Your task to perform on an android device: Search for logitech g pro on walmart.com, select the first entry, and add it to the cart. Image 0: 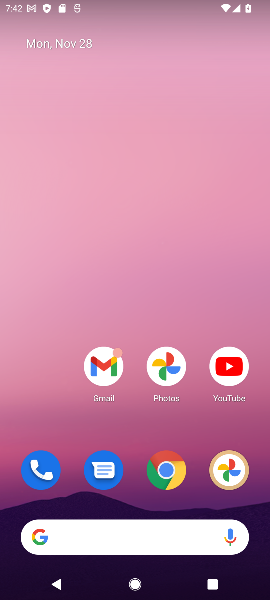
Step 0: click (94, 526)
Your task to perform on an android device: Search for logitech g pro on walmart.com, select the first entry, and add it to the cart. Image 1: 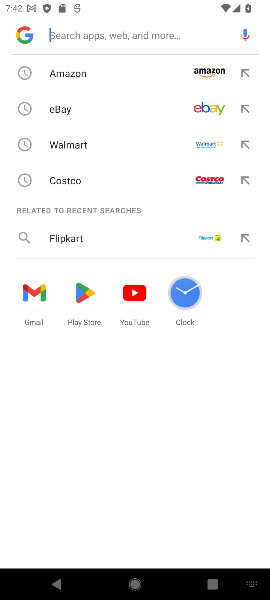
Step 1: click (87, 144)
Your task to perform on an android device: Search for logitech g pro on walmart.com, select the first entry, and add it to the cart. Image 2: 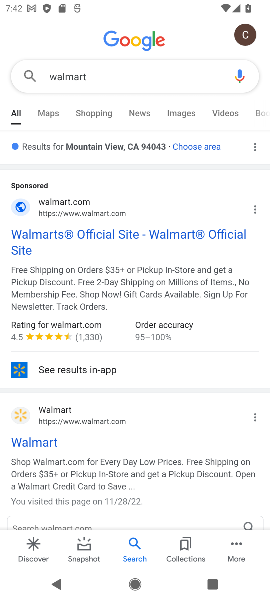
Step 2: click (48, 444)
Your task to perform on an android device: Search for logitech g pro on walmart.com, select the first entry, and add it to the cart. Image 3: 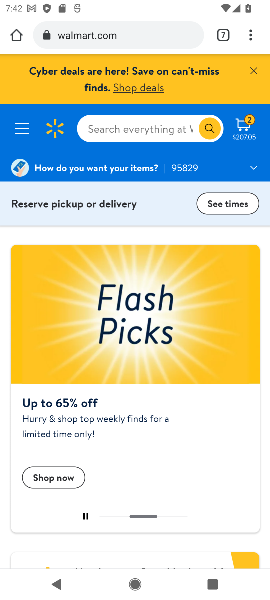
Step 3: click (144, 129)
Your task to perform on an android device: Search for logitech g pro on walmart.com, select the first entry, and add it to the cart. Image 4: 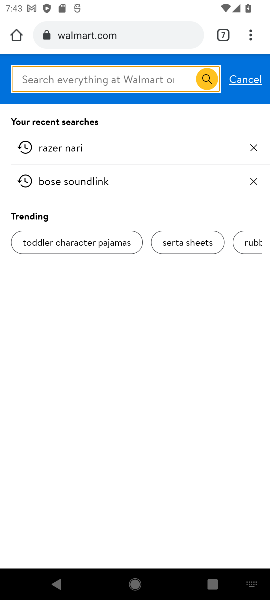
Step 4: type "logitech g pro "
Your task to perform on an android device: Search for logitech g pro on walmart.com, select the first entry, and add it to the cart. Image 5: 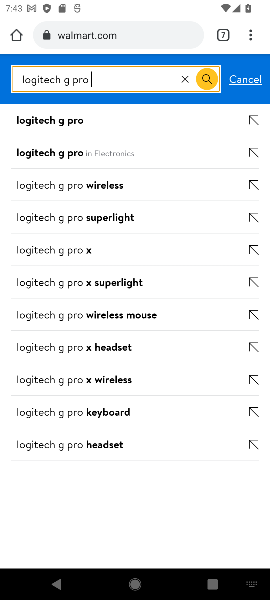
Step 5: click (58, 121)
Your task to perform on an android device: Search for logitech g pro on walmart.com, select the first entry, and add it to the cart. Image 6: 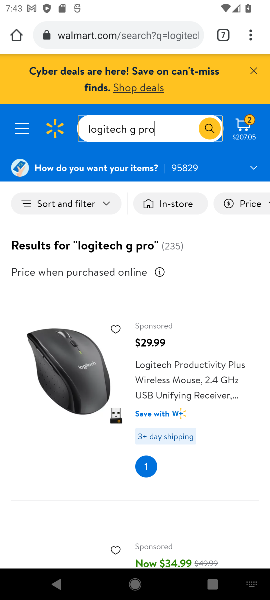
Step 6: click (144, 472)
Your task to perform on an android device: Search for logitech g pro on walmart.com, select the first entry, and add it to the cart. Image 7: 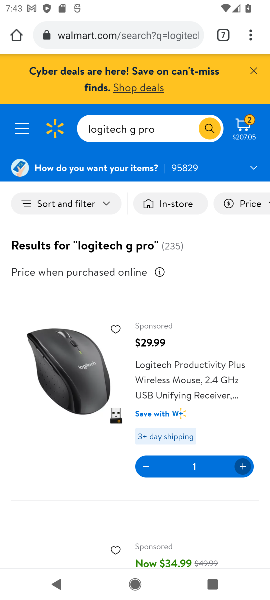
Step 7: click (207, 469)
Your task to perform on an android device: Search for logitech g pro on walmart.com, select the first entry, and add it to the cart. Image 8: 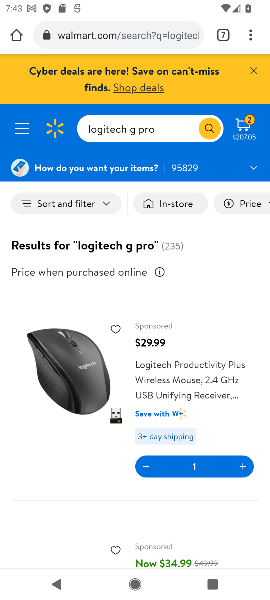
Step 8: click (242, 469)
Your task to perform on an android device: Search for logitech g pro on walmart.com, select the first entry, and add it to the cart. Image 9: 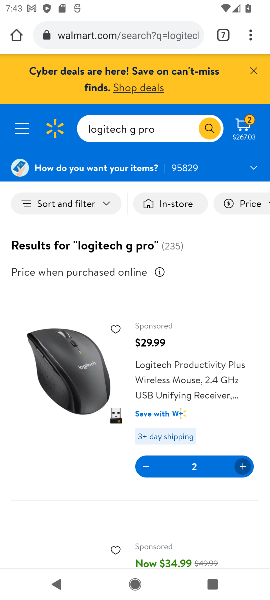
Step 9: task complete